Your task to perform on an android device: Search for a 24-inch cordless drill. Image 0: 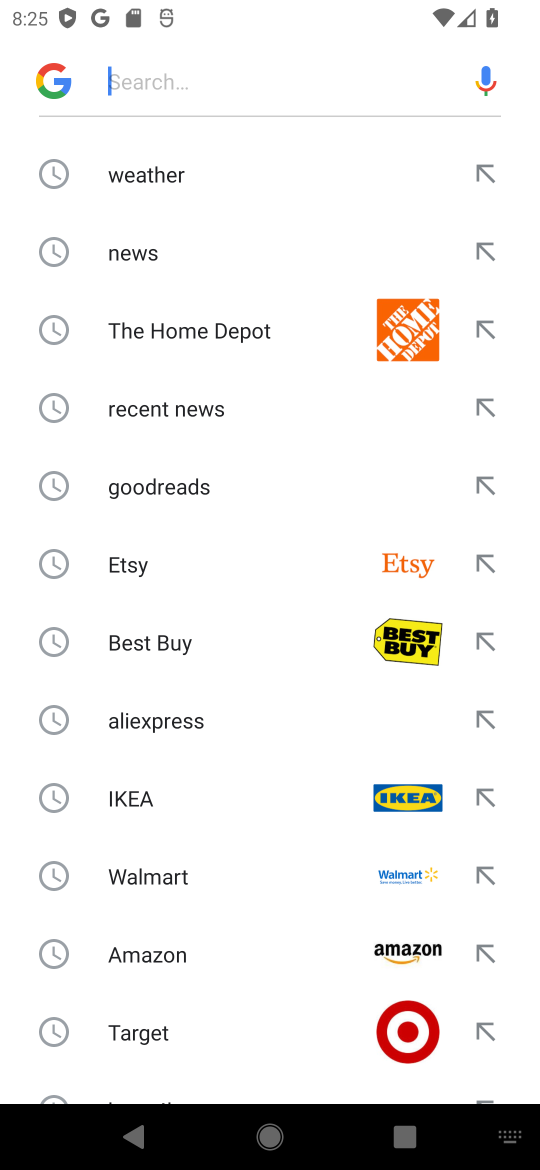
Step 0: press home button
Your task to perform on an android device: Search for a 24-inch cordless drill. Image 1: 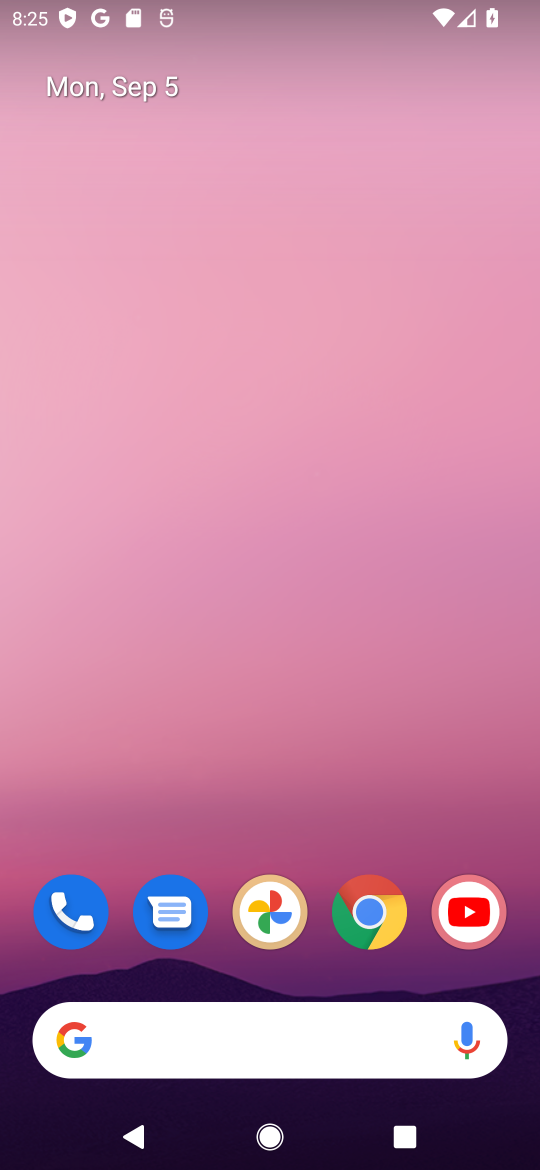
Step 1: click (362, 920)
Your task to perform on an android device: Search for a 24-inch cordless drill. Image 2: 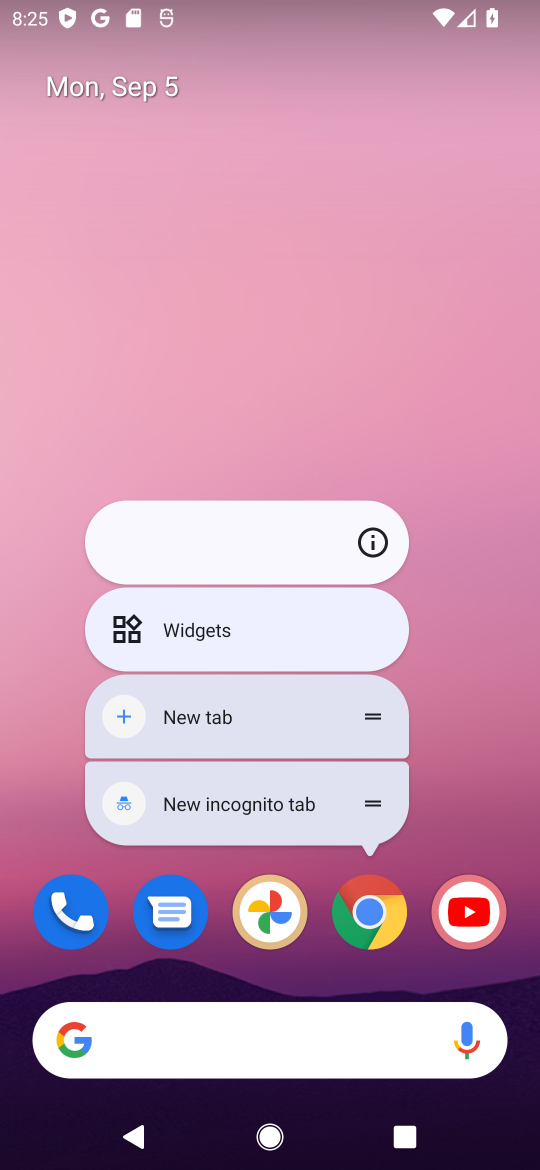
Step 2: click (385, 918)
Your task to perform on an android device: Search for a 24-inch cordless drill. Image 3: 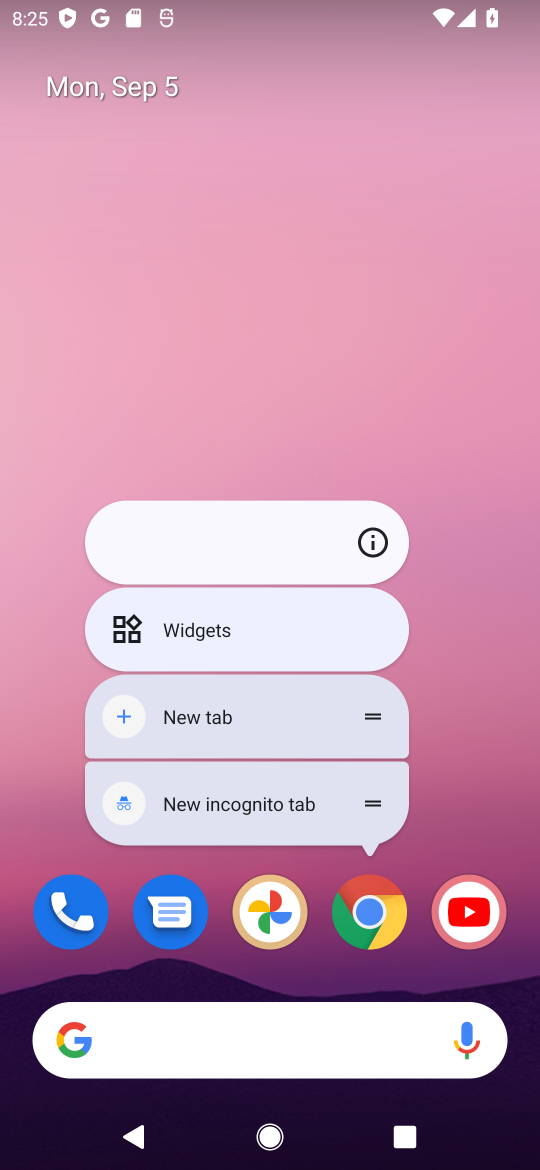
Step 3: click (364, 927)
Your task to perform on an android device: Search for a 24-inch cordless drill. Image 4: 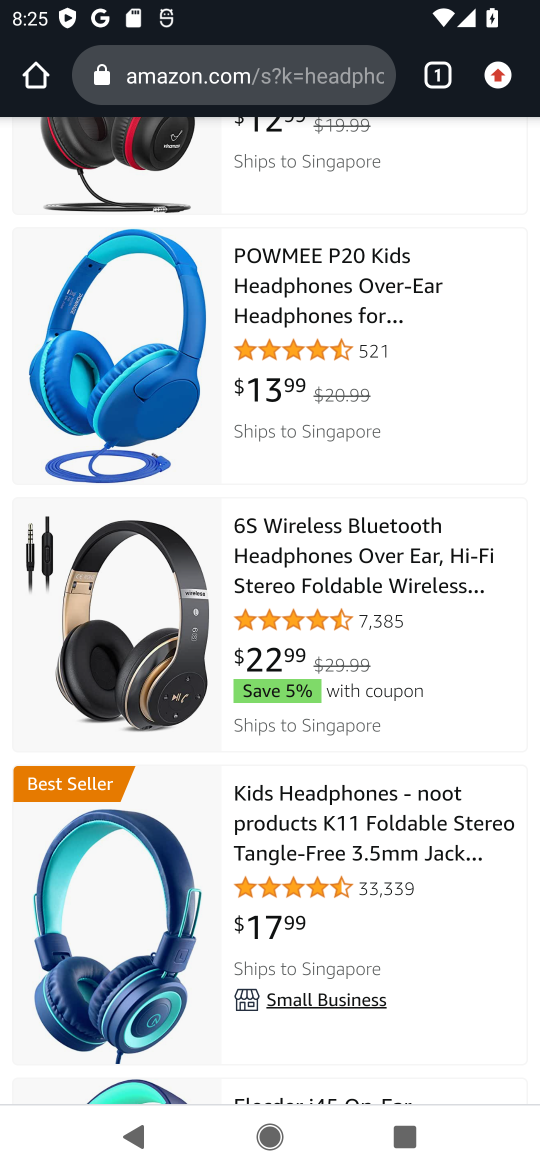
Step 4: click (257, 73)
Your task to perform on an android device: Search for a 24-inch cordless drill. Image 5: 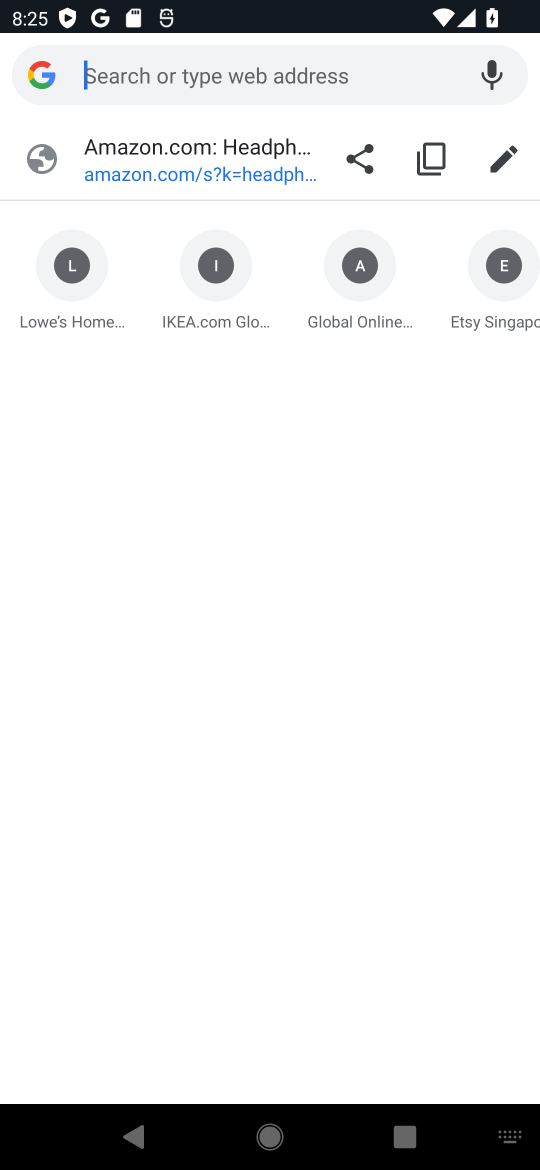
Step 5: type "24-inch cordless drill"
Your task to perform on an android device: Search for a 24-inch cordless drill. Image 6: 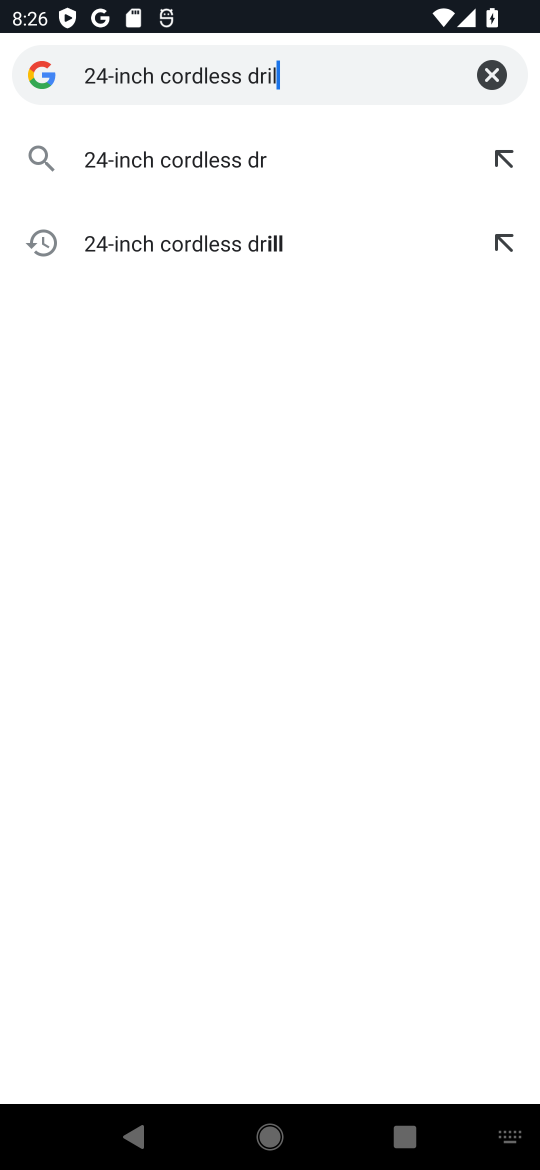
Step 6: press enter
Your task to perform on an android device: Search for a 24-inch cordless drill. Image 7: 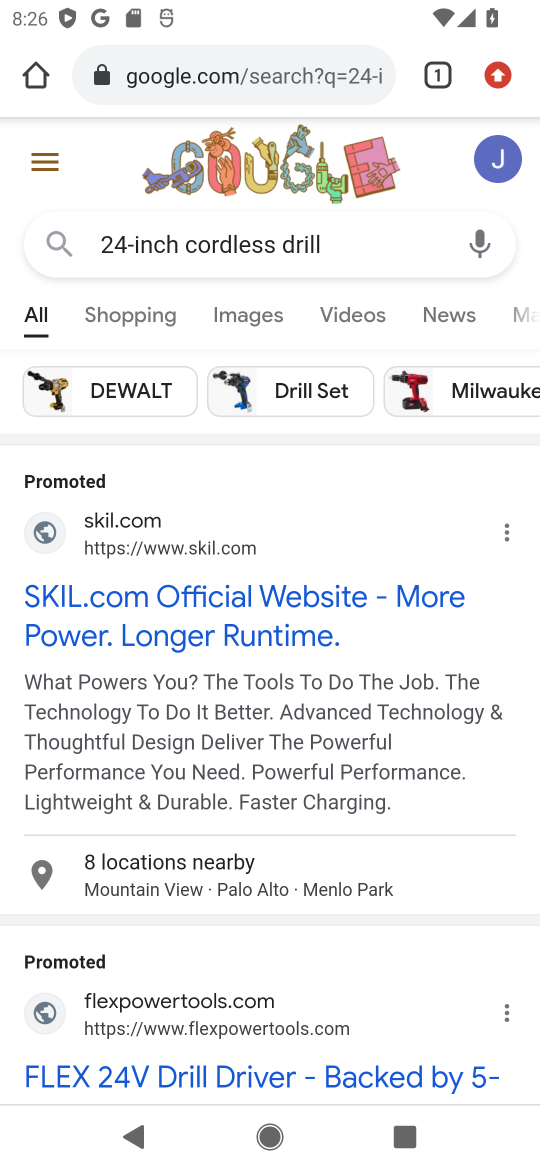
Step 7: drag from (396, 807) to (422, 277)
Your task to perform on an android device: Search for a 24-inch cordless drill. Image 8: 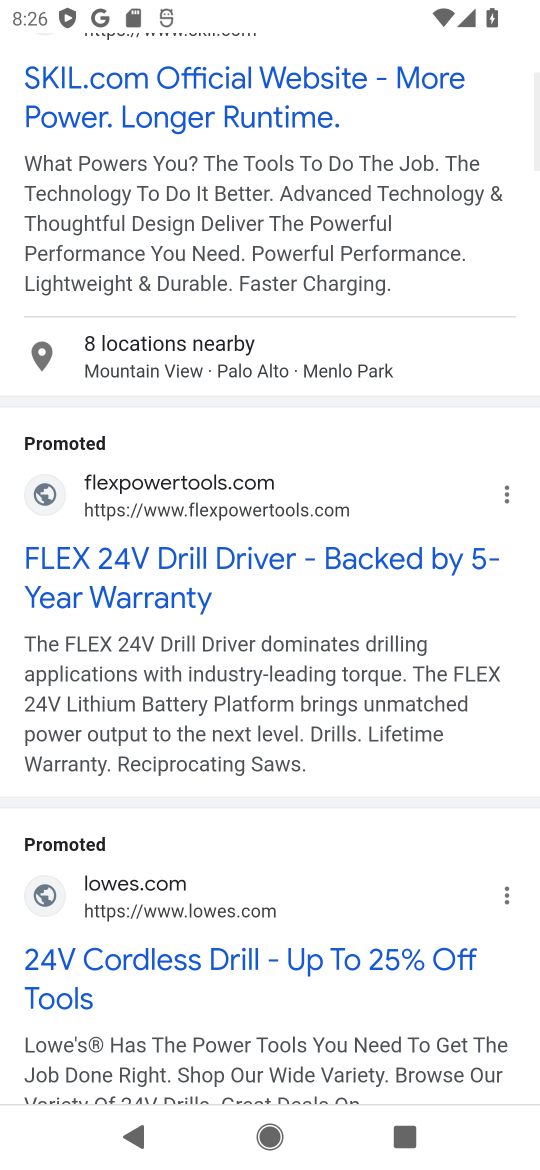
Step 8: click (524, 436)
Your task to perform on an android device: Search for a 24-inch cordless drill. Image 9: 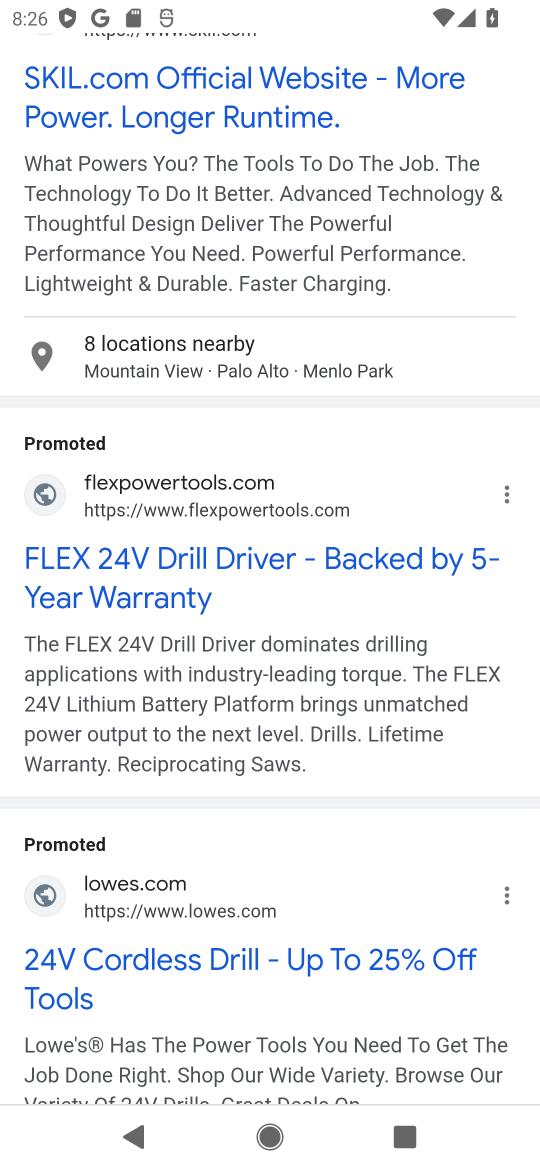
Step 9: drag from (317, 861) to (360, 378)
Your task to perform on an android device: Search for a 24-inch cordless drill. Image 10: 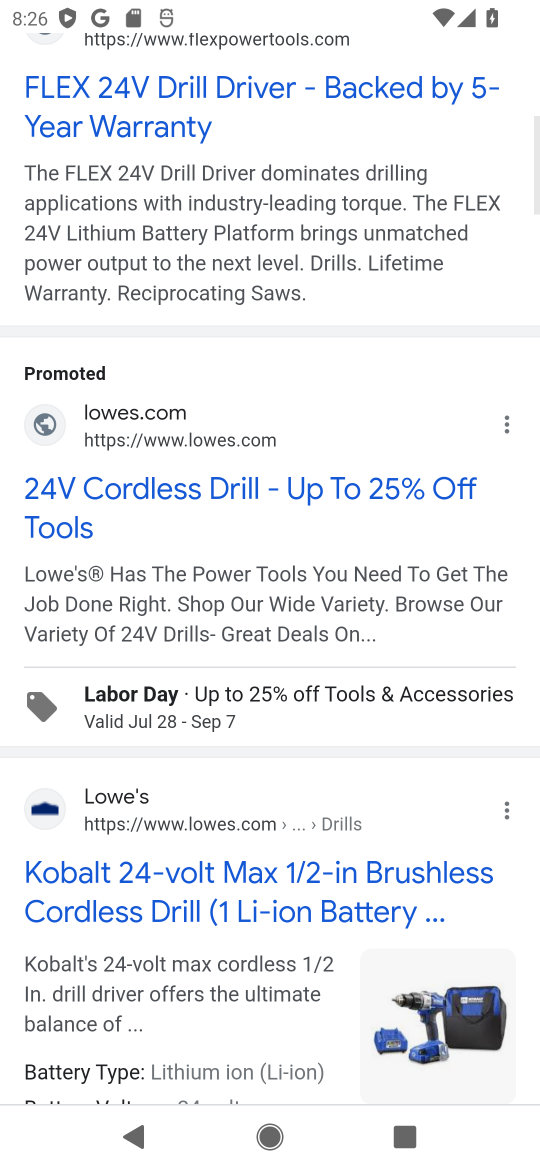
Step 10: drag from (317, 901) to (365, 376)
Your task to perform on an android device: Search for a 24-inch cordless drill. Image 11: 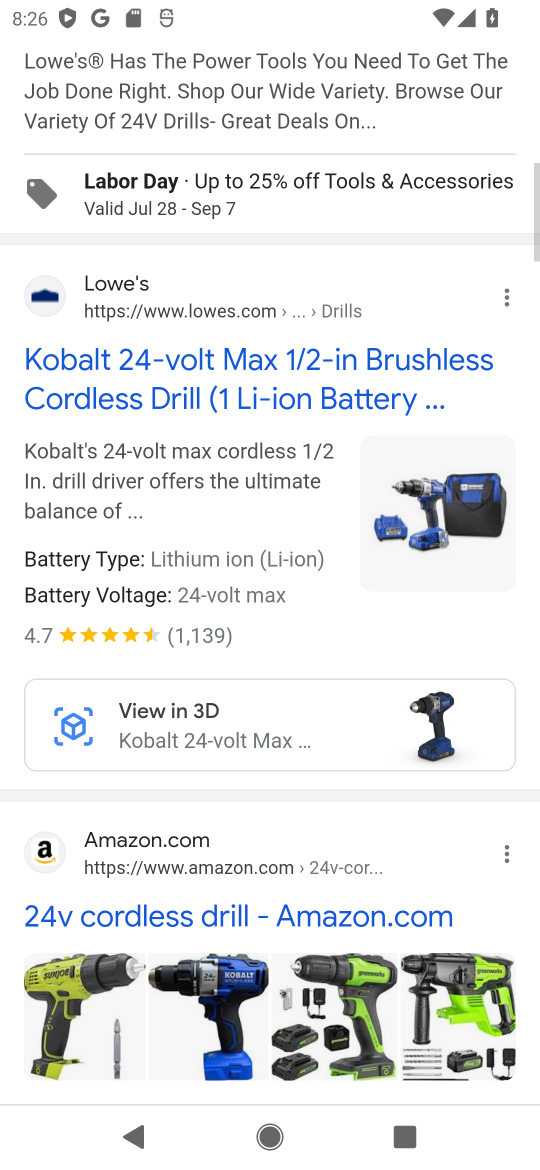
Step 11: click (331, 437)
Your task to perform on an android device: Search for a 24-inch cordless drill. Image 12: 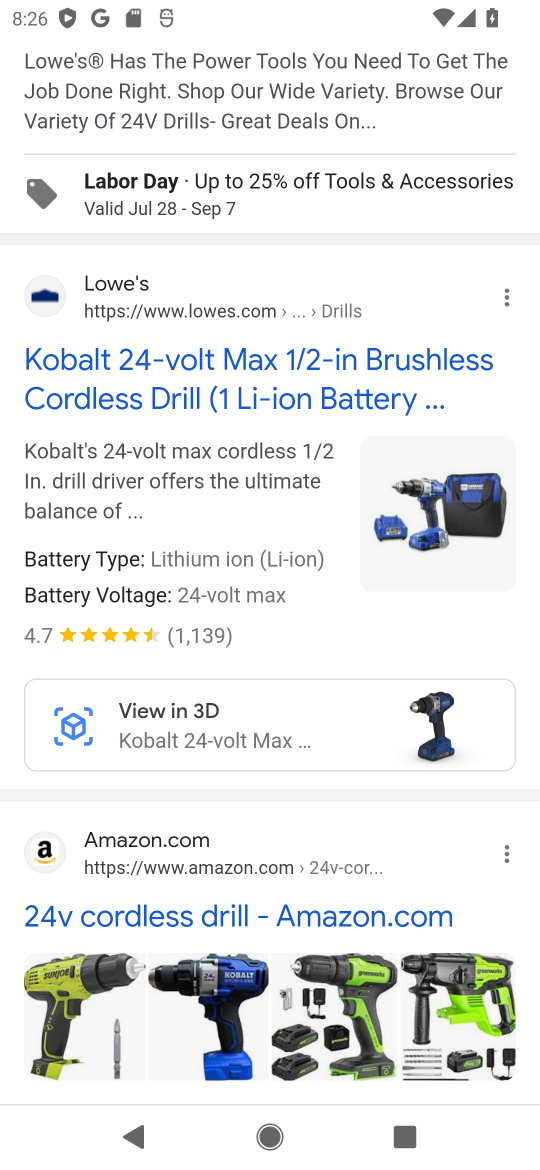
Step 12: task complete